Your task to perform on an android device: Go to eBay Image 0: 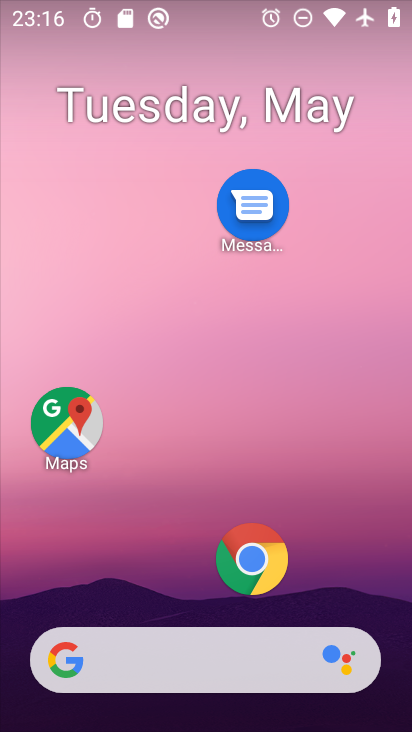
Step 0: click (251, 581)
Your task to perform on an android device: Go to eBay Image 1: 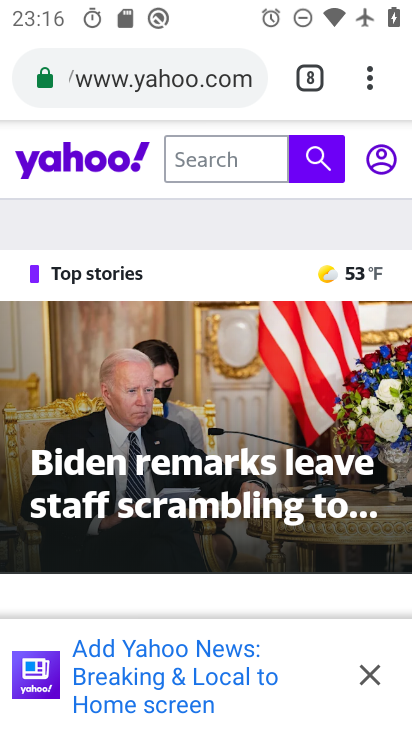
Step 1: click (295, 75)
Your task to perform on an android device: Go to eBay Image 2: 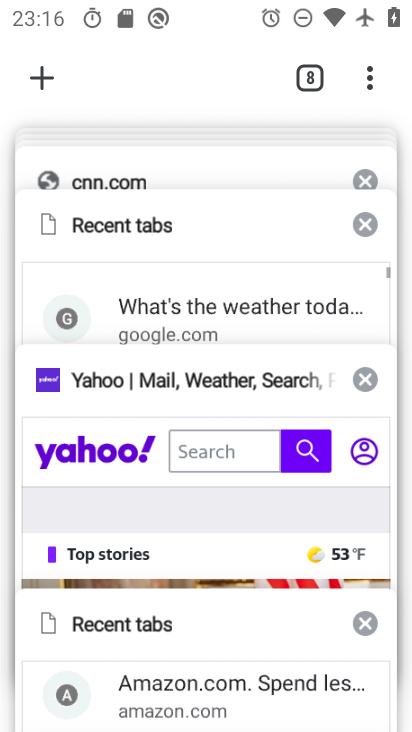
Step 2: click (41, 70)
Your task to perform on an android device: Go to eBay Image 3: 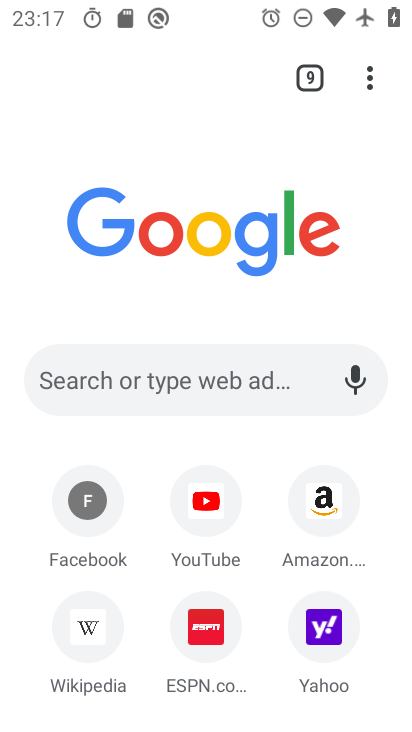
Step 3: drag from (167, 600) to (180, 342)
Your task to perform on an android device: Go to eBay Image 4: 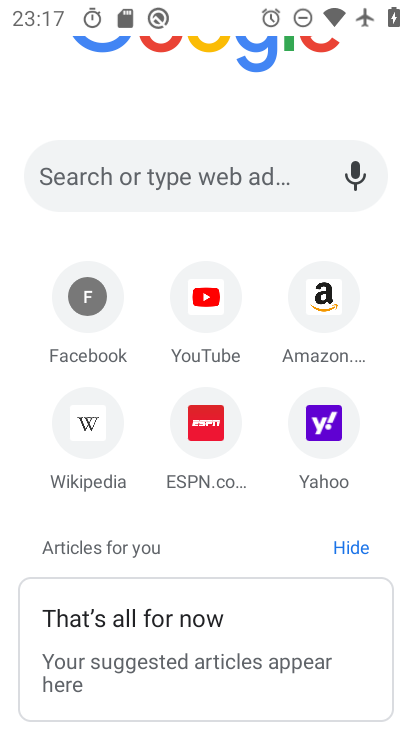
Step 4: click (150, 180)
Your task to perform on an android device: Go to eBay Image 5: 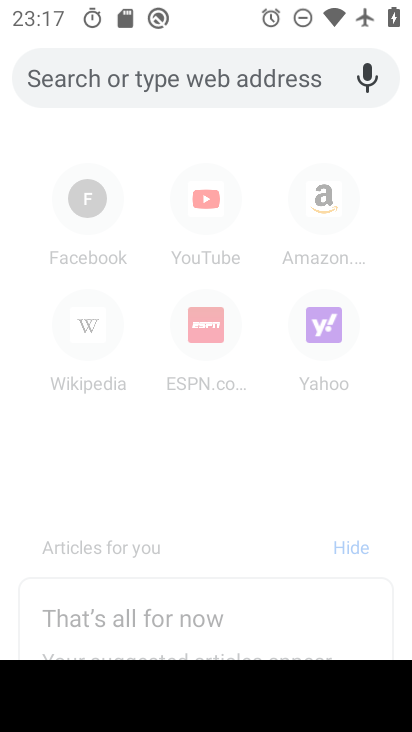
Step 5: type "eBay"
Your task to perform on an android device: Go to eBay Image 6: 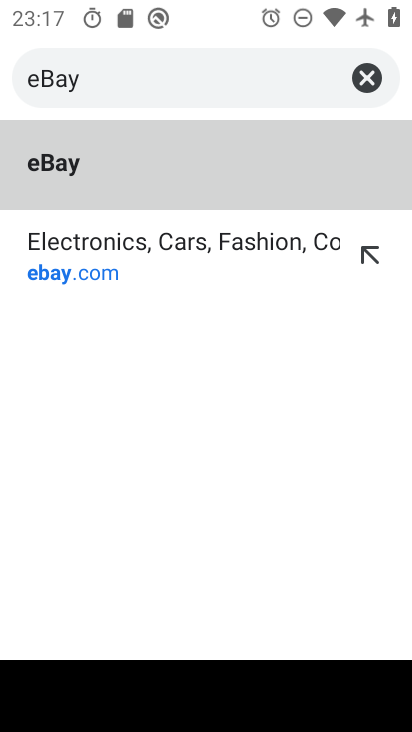
Step 6: click (205, 155)
Your task to perform on an android device: Go to eBay Image 7: 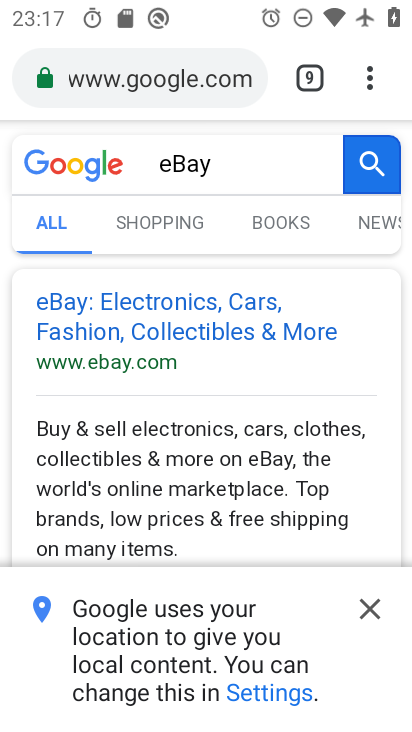
Step 7: click (109, 312)
Your task to perform on an android device: Go to eBay Image 8: 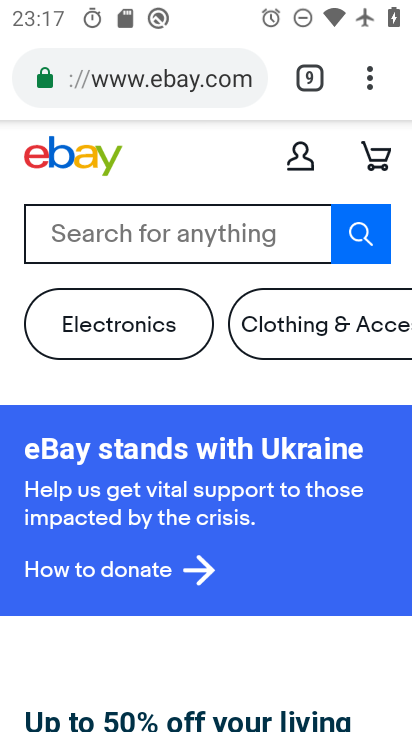
Step 8: task complete